Your task to perform on an android device: find snoozed emails in the gmail app Image 0: 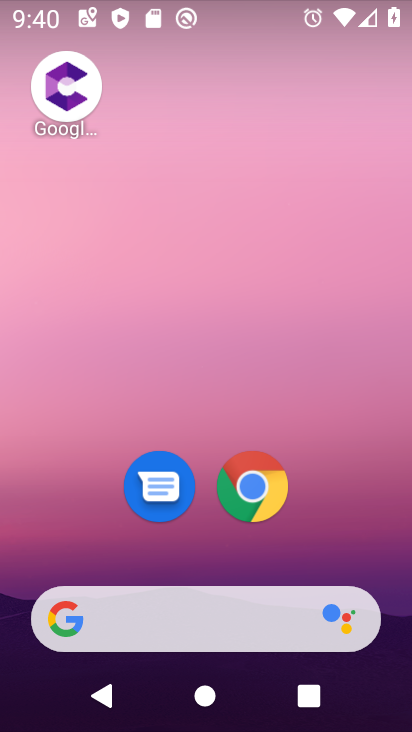
Step 0: drag from (390, 550) to (322, 115)
Your task to perform on an android device: find snoozed emails in the gmail app Image 1: 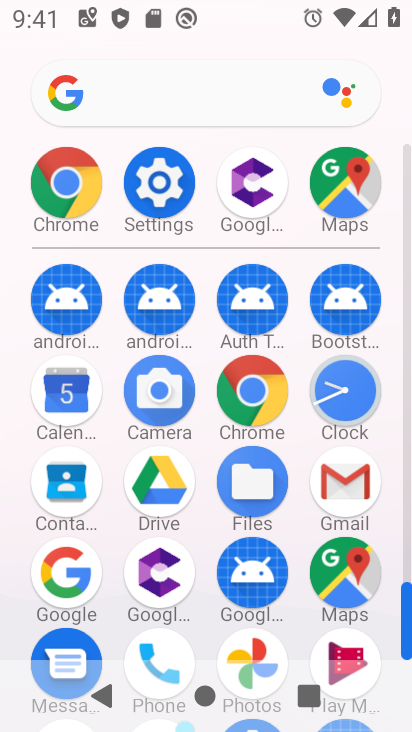
Step 1: click (340, 488)
Your task to perform on an android device: find snoozed emails in the gmail app Image 2: 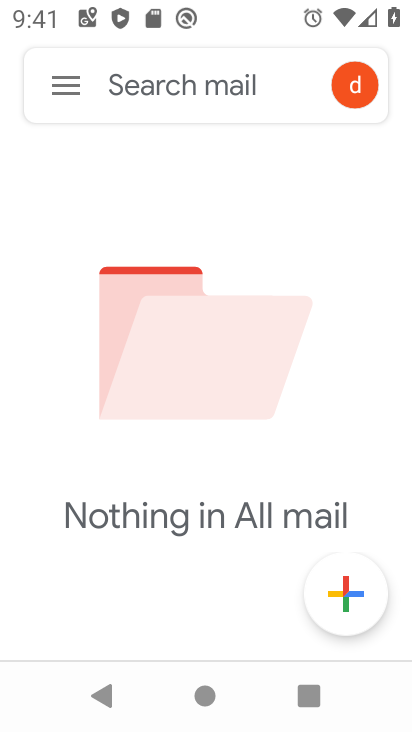
Step 2: click (65, 93)
Your task to perform on an android device: find snoozed emails in the gmail app Image 3: 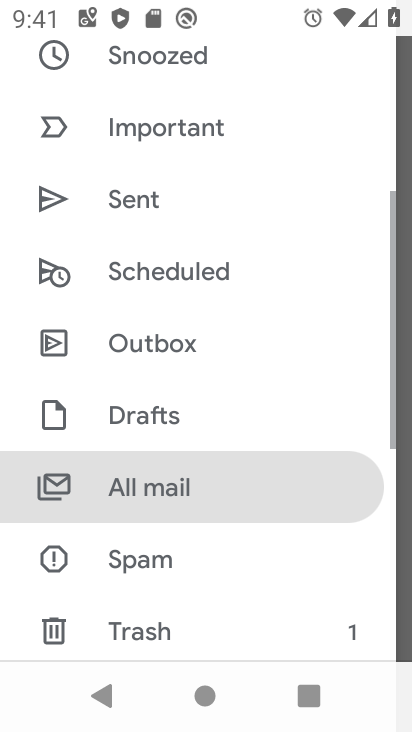
Step 3: drag from (218, 200) to (238, 404)
Your task to perform on an android device: find snoozed emails in the gmail app Image 4: 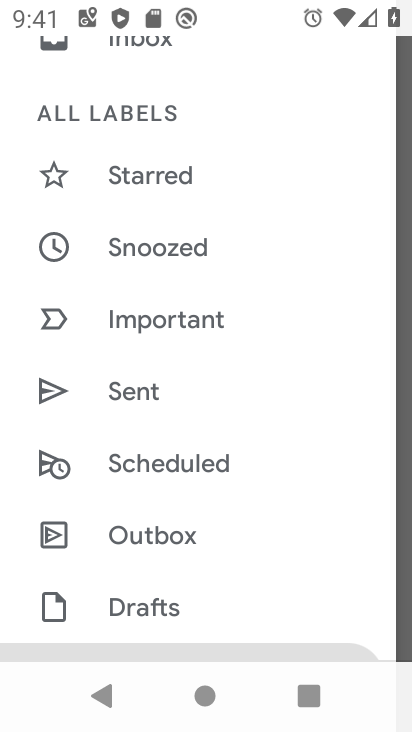
Step 4: click (215, 253)
Your task to perform on an android device: find snoozed emails in the gmail app Image 5: 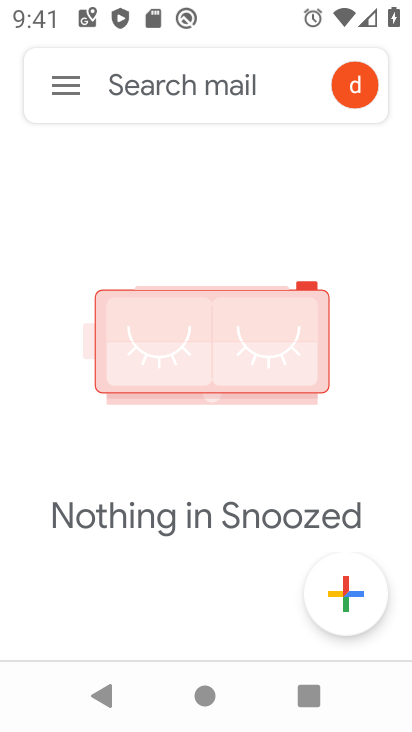
Step 5: task complete